Your task to perform on an android device: toggle location history Image 0: 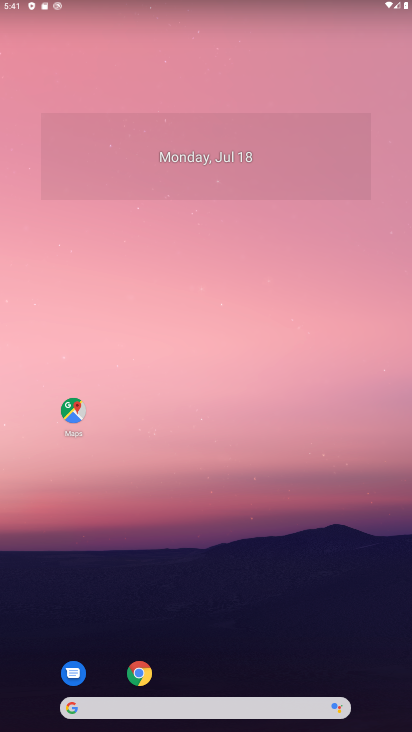
Step 0: drag from (266, 607) to (295, 124)
Your task to perform on an android device: toggle location history Image 1: 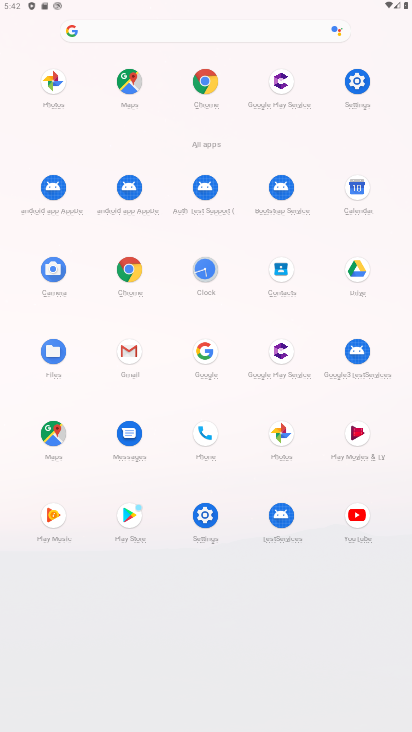
Step 1: click (212, 511)
Your task to perform on an android device: toggle location history Image 2: 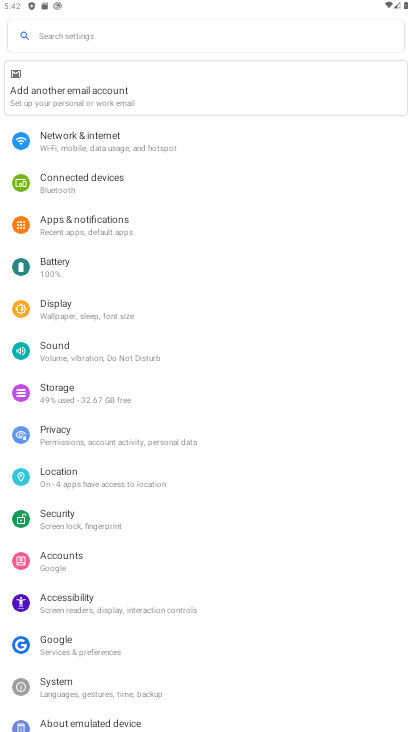
Step 2: click (73, 473)
Your task to perform on an android device: toggle location history Image 3: 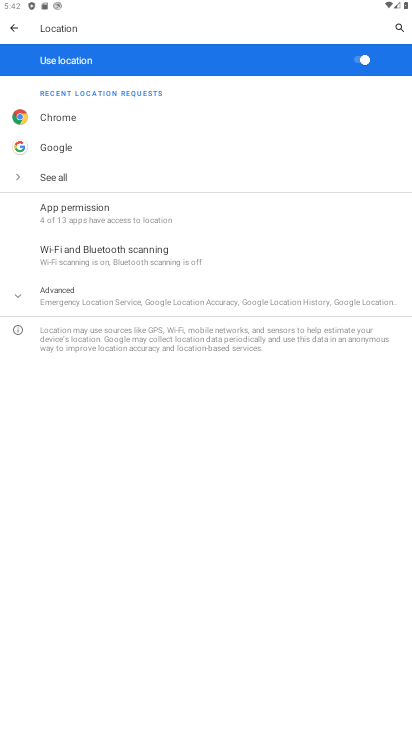
Step 3: task complete